Your task to perform on an android device: turn off airplane mode Image 0: 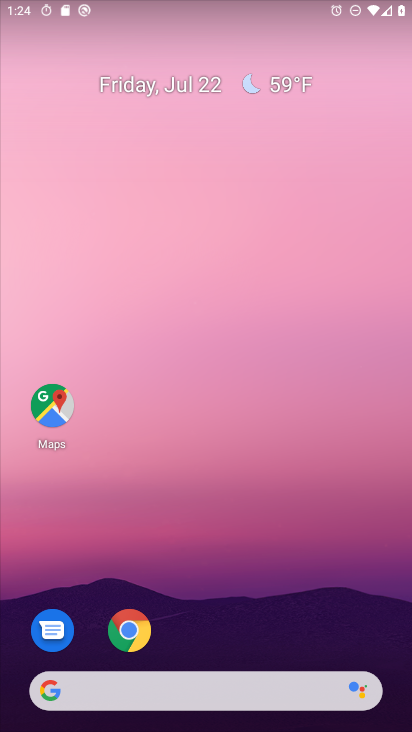
Step 0: press home button
Your task to perform on an android device: turn off airplane mode Image 1: 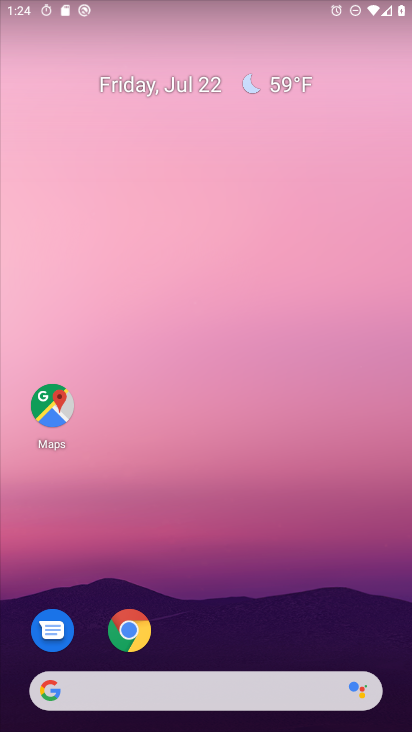
Step 1: task complete